Your task to perform on an android device: turn on wifi Image 0: 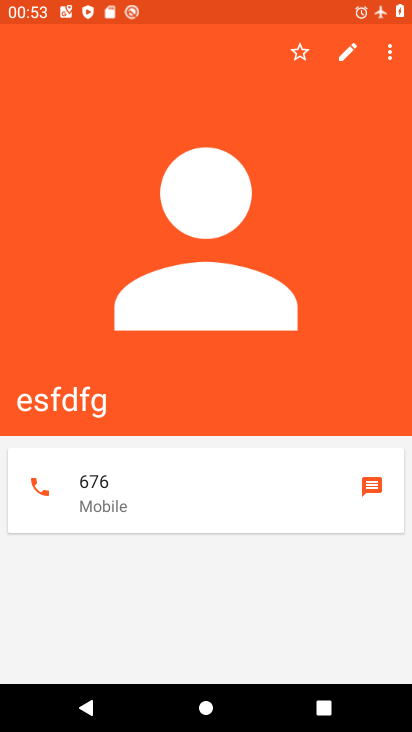
Step 0: press home button
Your task to perform on an android device: turn on wifi Image 1: 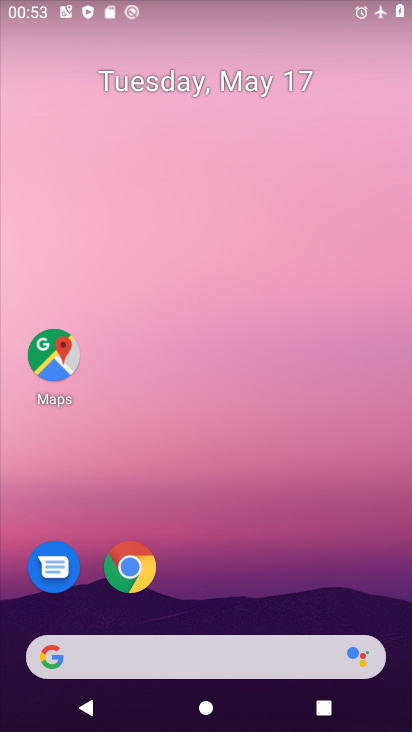
Step 1: drag from (221, 563) to (169, 219)
Your task to perform on an android device: turn on wifi Image 2: 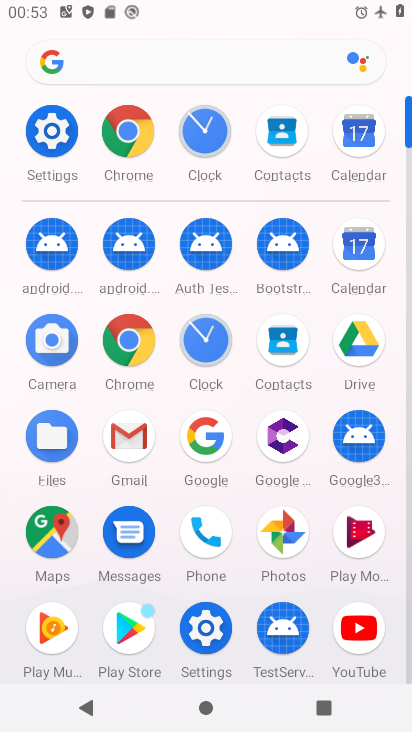
Step 2: click (57, 126)
Your task to perform on an android device: turn on wifi Image 3: 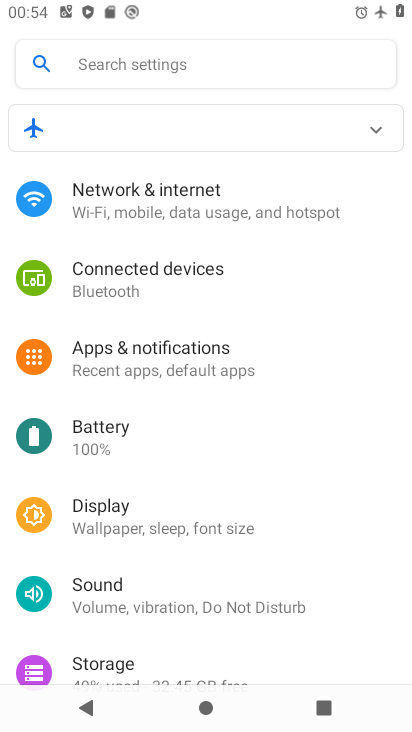
Step 3: click (125, 183)
Your task to perform on an android device: turn on wifi Image 4: 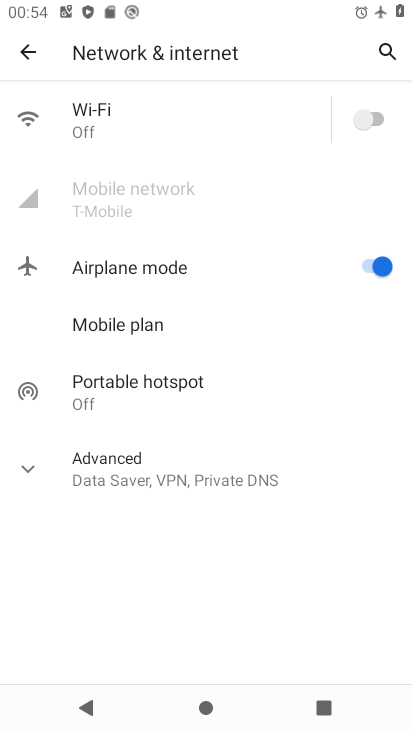
Step 4: click (367, 115)
Your task to perform on an android device: turn on wifi Image 5: 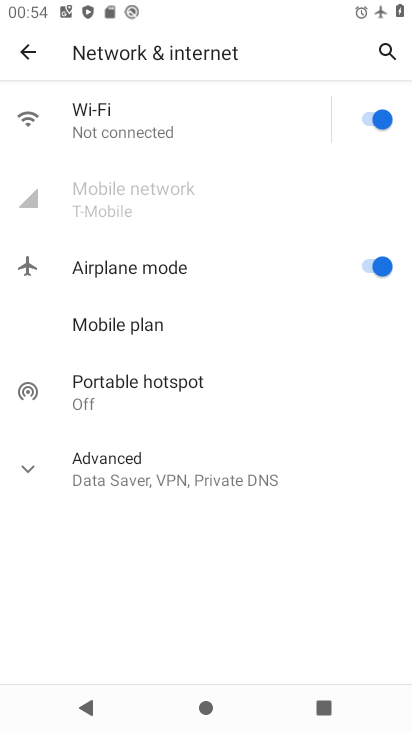
Step 5: task complete